Your task to perform on an android device: change the clock display to show seconds Image 0: 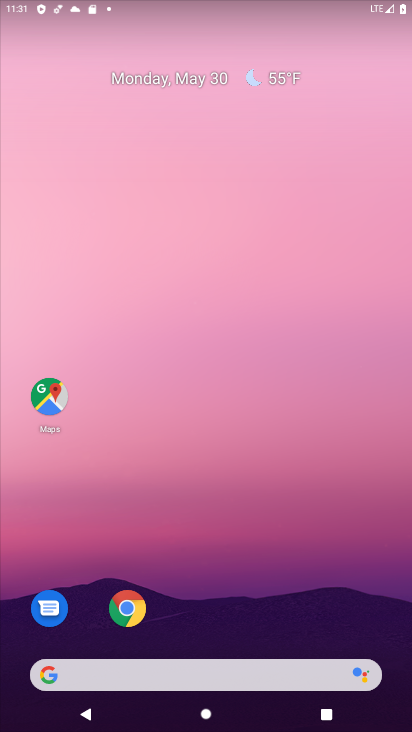
Step 0: drag from (316, 649) to (348, 17)
Your task to perform on an android device: change the clock display to show seconds Image 1: 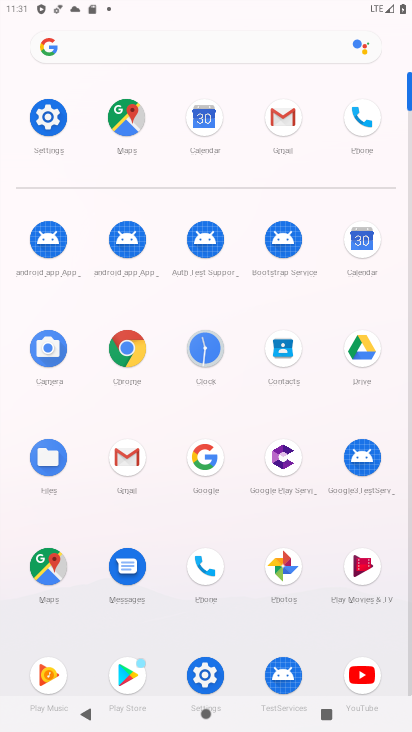
Step 1: click (209, 354)
Your task to perform on an android device: change the clock display to show seconds Image 2: 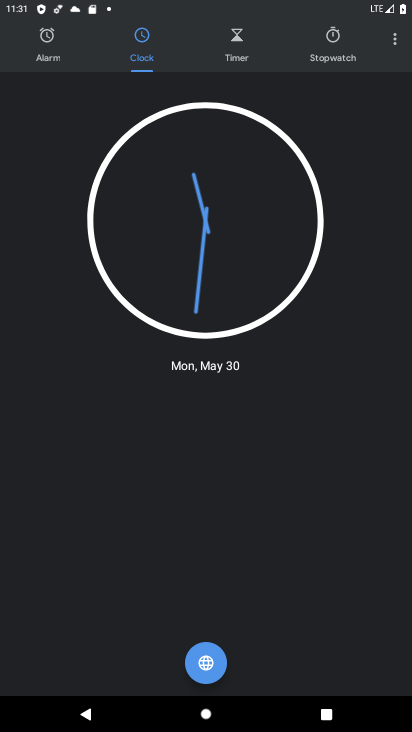
Step 2: click (397, 49)
Your task to perform on an android device: change the clock display to show seconds Image 3: 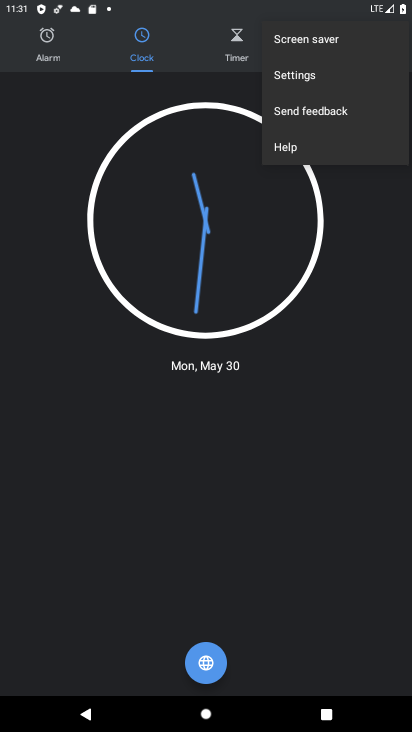
Step 3: click (310, 78)
Your task to perform on an android device: change the clock display to show seconds Image 4: 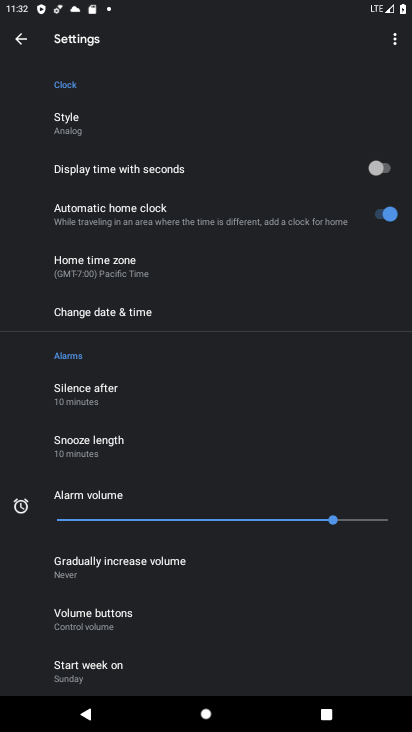
Step 4: click (378, 165)
Your task to perform on an android device: change the clock display to show seconds Image 5: 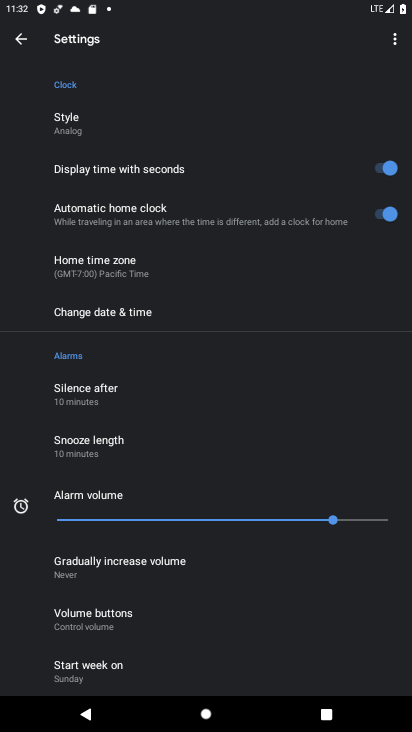
Step 5: task complete